Your task to perform on an android device: Empty the shopping cart on walmart.com. Search for "macbook" on walmart.com, select the first entry, and add it to the cart. Image 0: 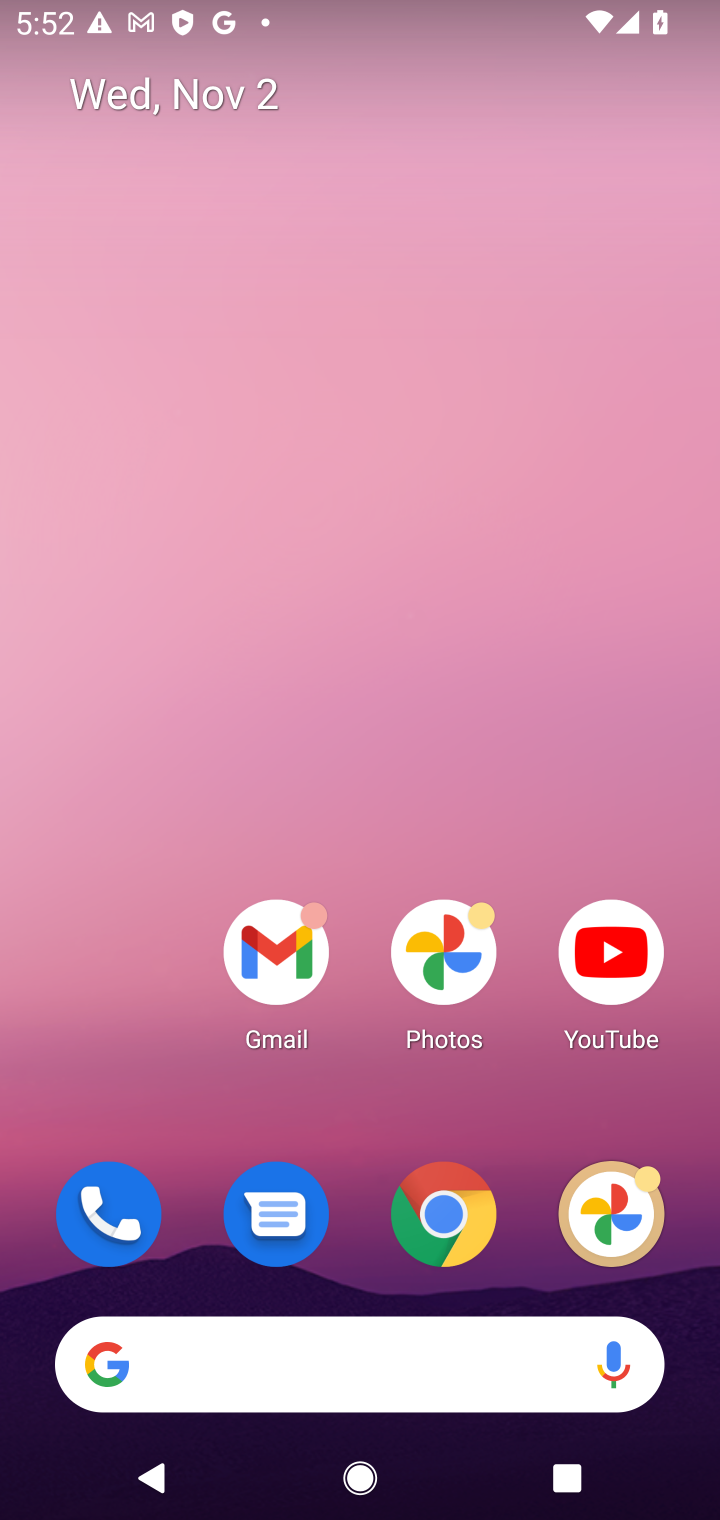
Step 0: click (440, 1213)
Your task to perform on an android device: Empty the shopping cart on walmart.com. Search for "macbook" on walmart.com, select the first entry, and add it to the cart. Image 1: 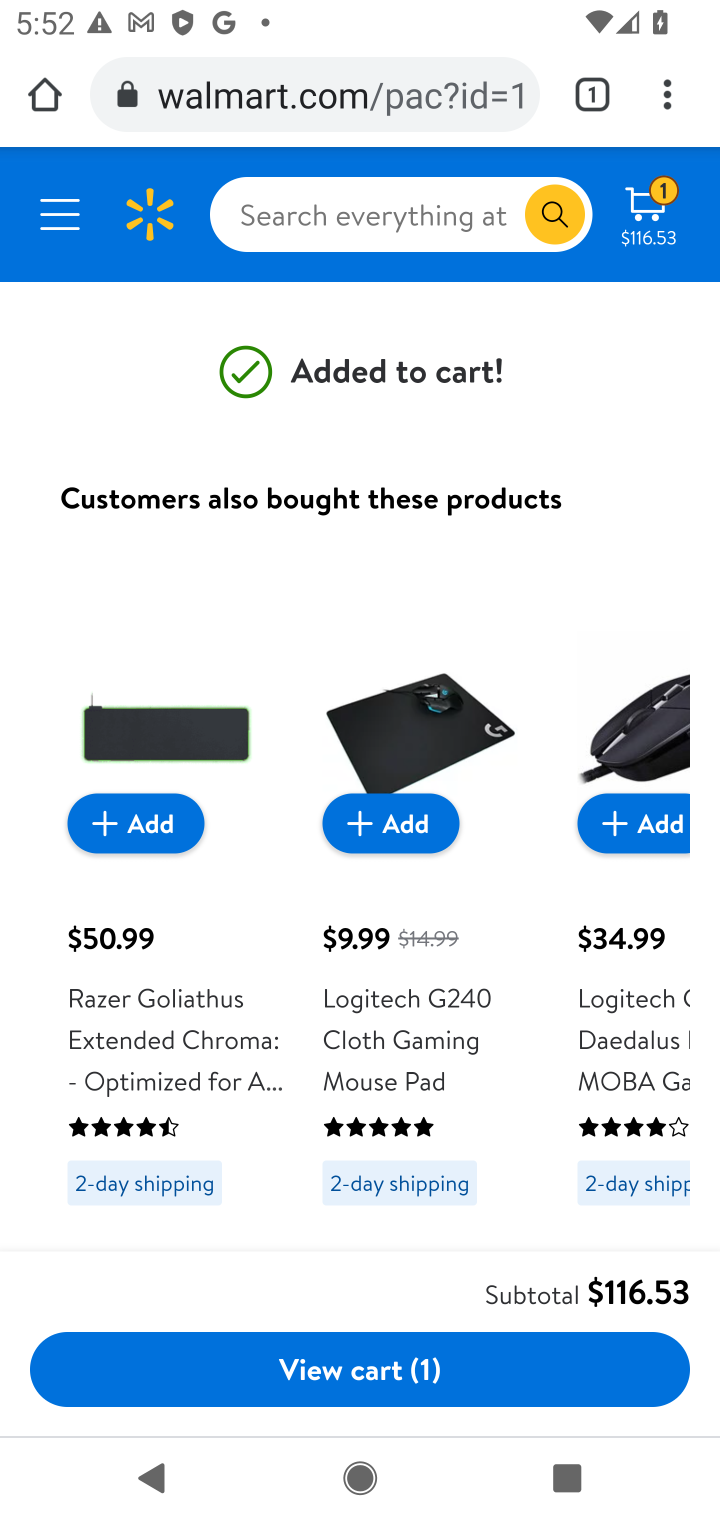
Step 1: click (384, 82)
Your task to perform on an android device: Empty the shopping cart on walmart.com. Search for "macbook" on walmart.com, select the first entry, and add it to the cart. Image 2: 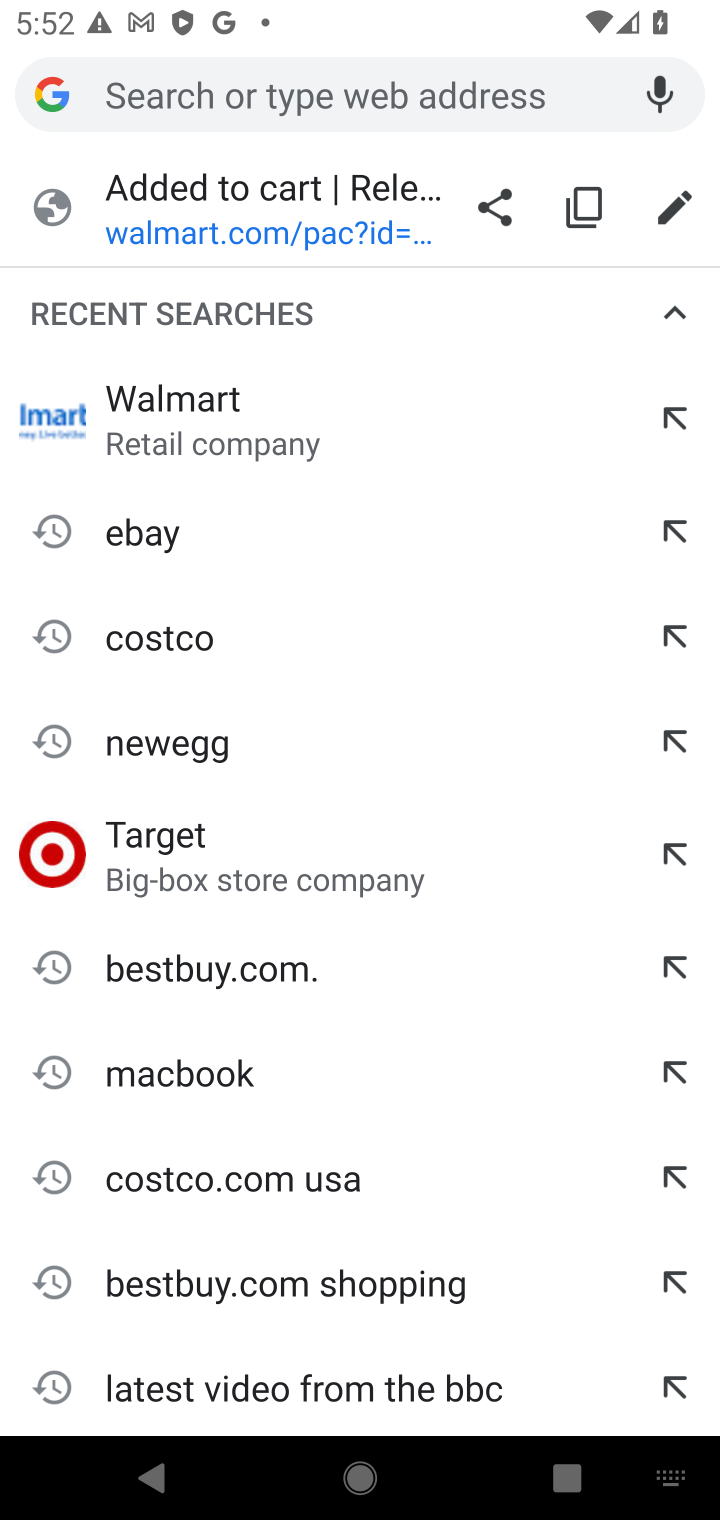
Step 2: type "walmart.com"
Your task to perform on an android device: Empty the shopping cart on walmart.com. Search for "macbook" on walmart.com, select the first entry, and add it to the cart. Image 3: 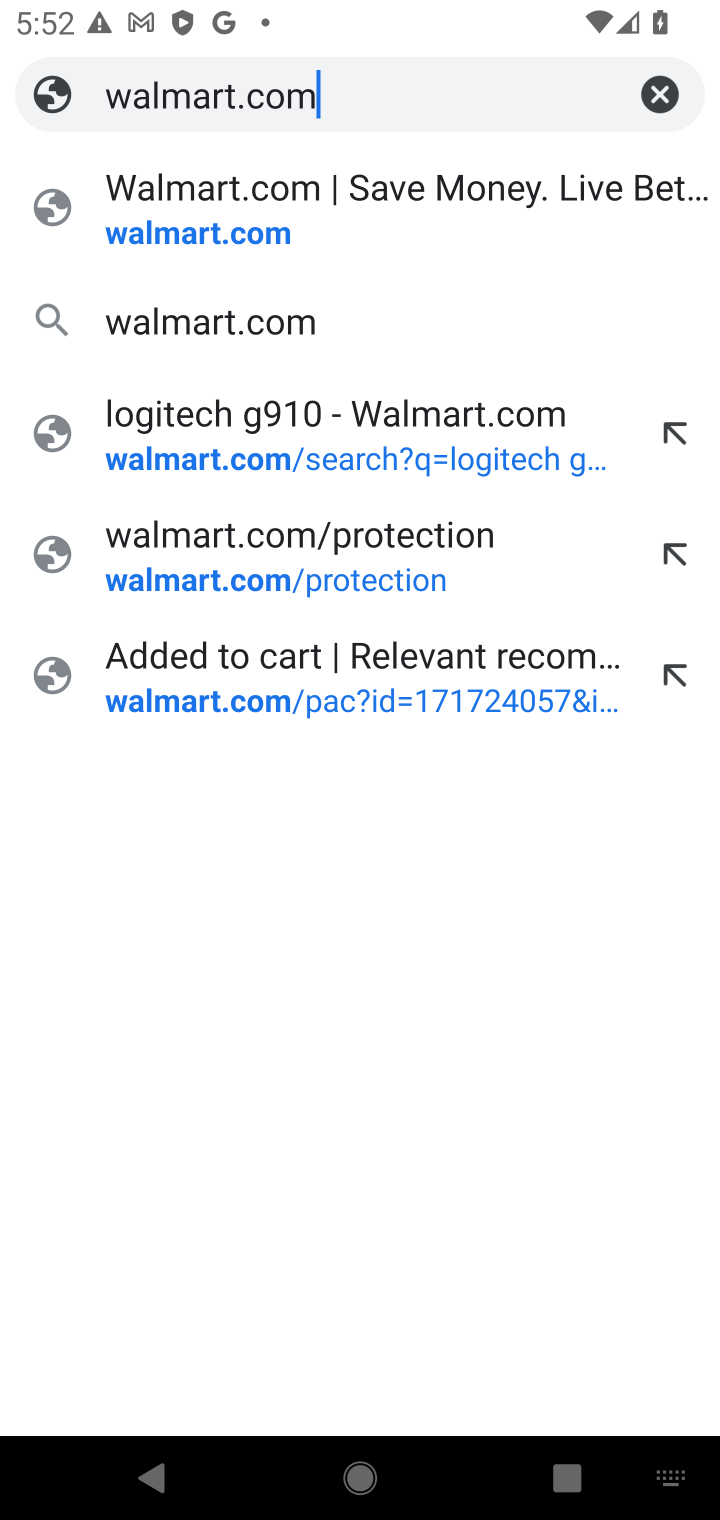
Step 3: click (291, 322)
Your task to perform on an android device: Empty the shopping cart on walmart.com. Search for "macbook" on walmart.com, select the first entry, and add it to the cart. Image 4: 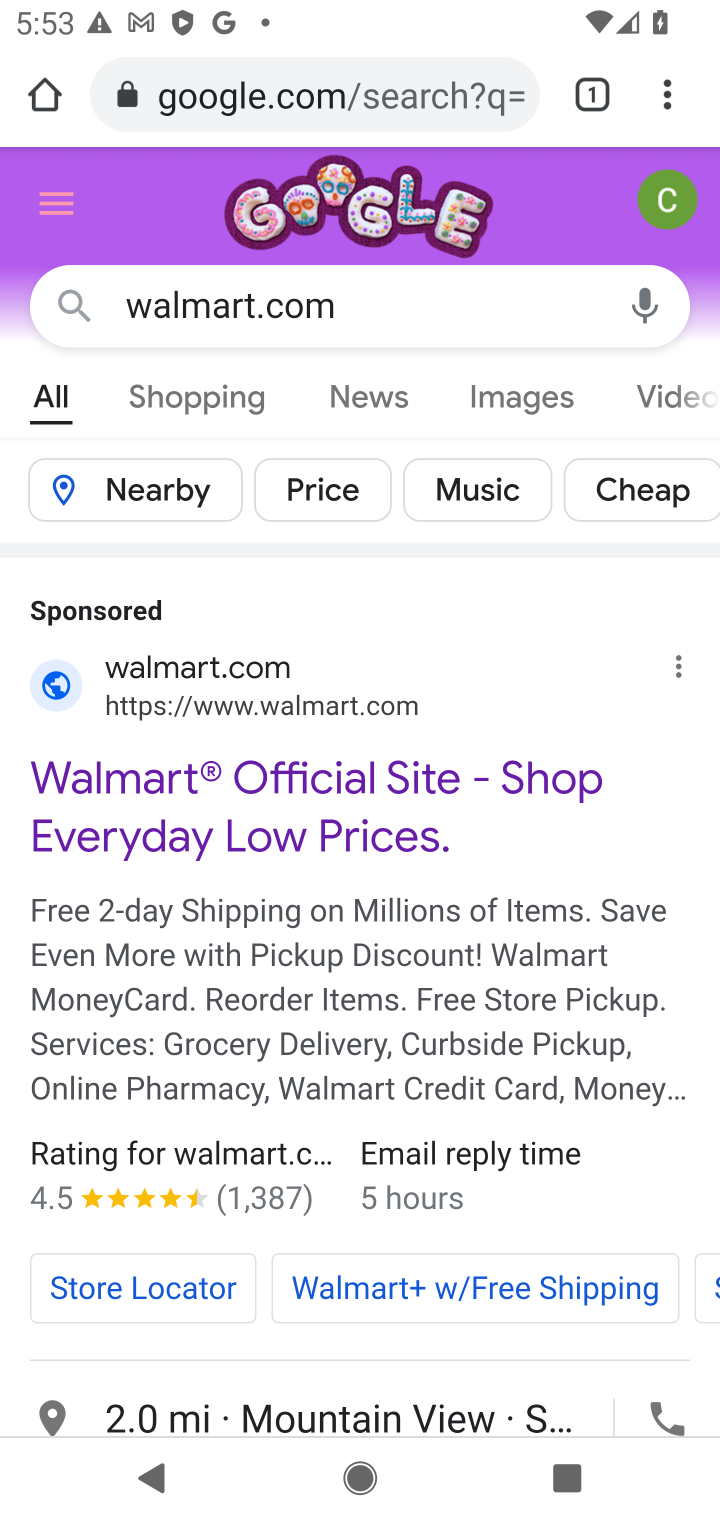
Step 4: drag from (426, 1210) to (449, 597)
Your task to perform on an android device: Empty the shopping cart on walmart.com. Search for "macbook" on walmart.com, select the first entry, and add it to the cart. Image 5: 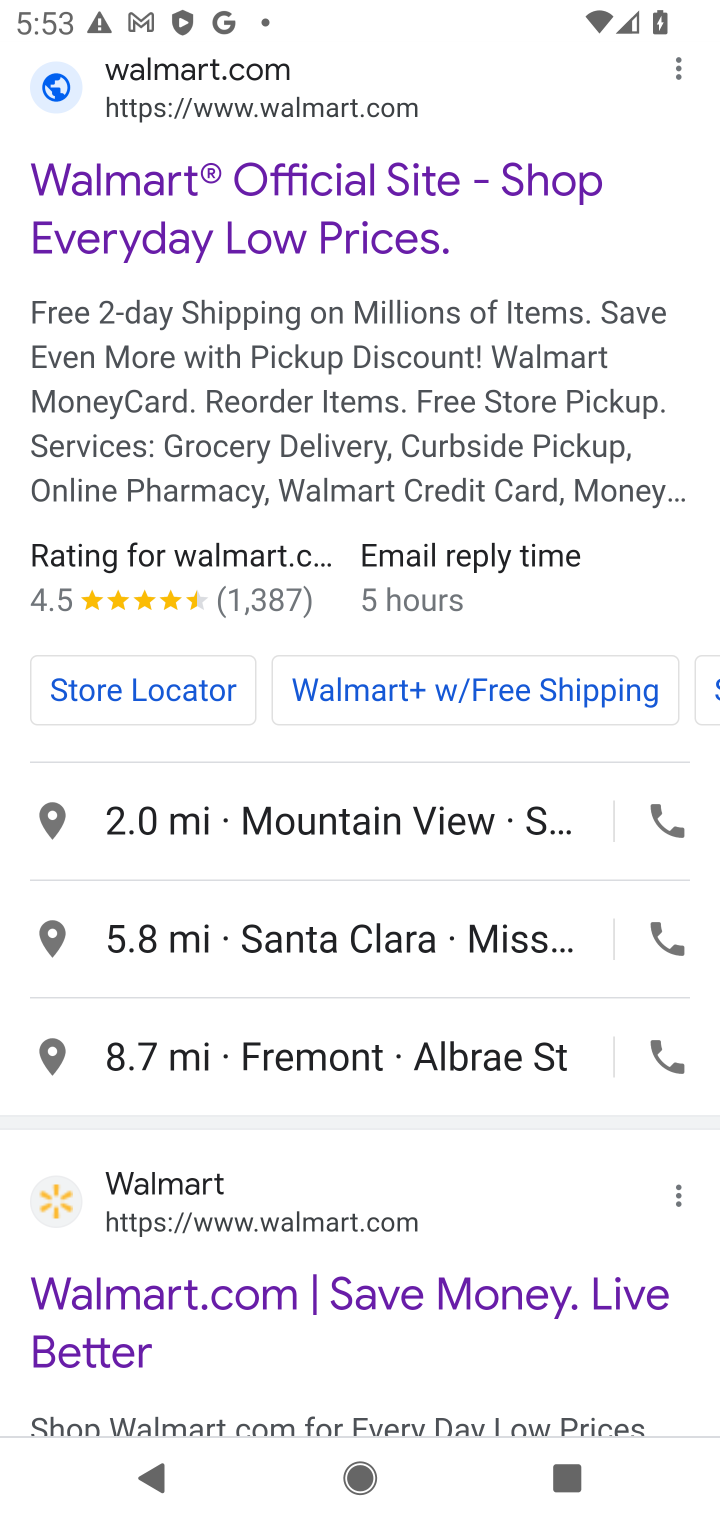
Step 5: drag from (471, 1212) to (515, 674)
Your task to perform on an android device: Empty the shopping cart on walmart.com. Search for "macbook" on walmart.com, select the first entry, and add it to the cart. Image 6: 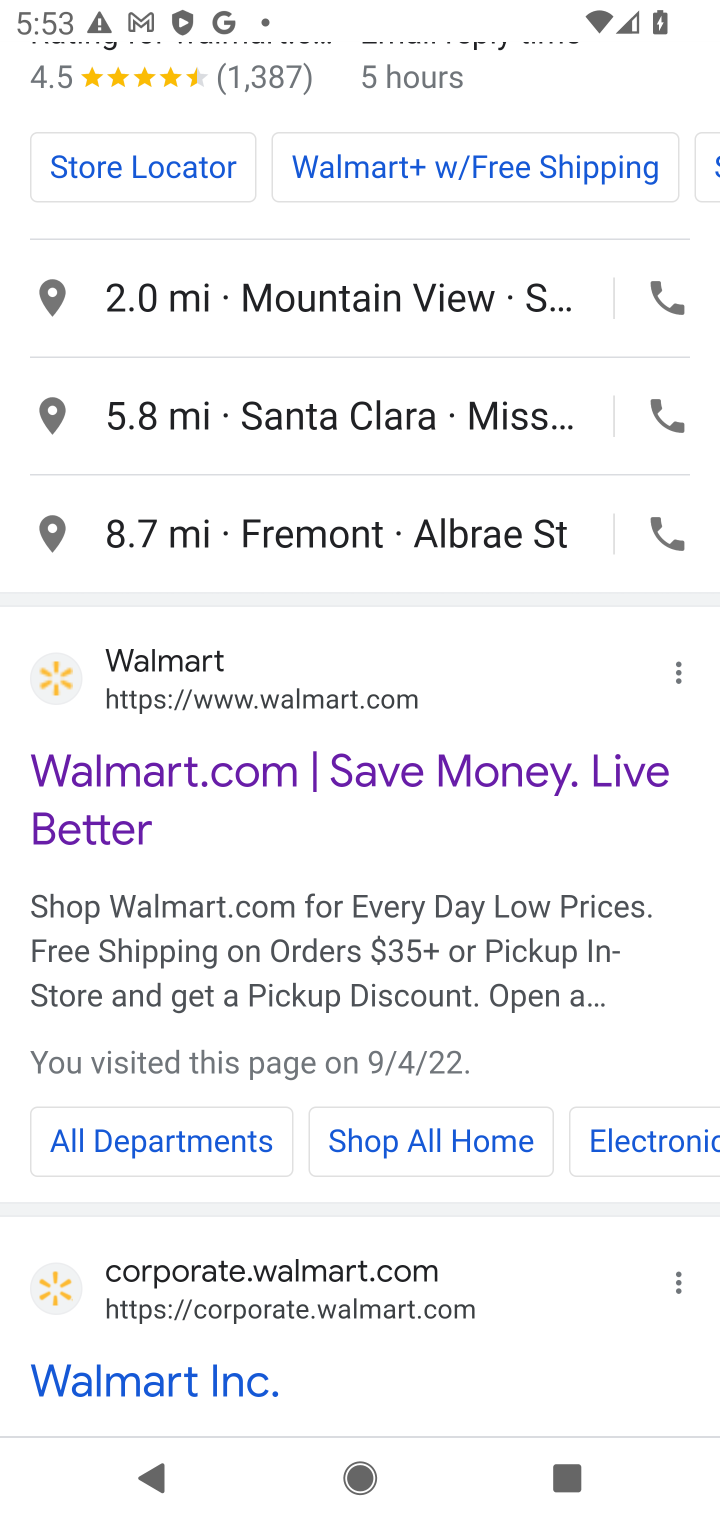
Step 6: click (211, 775)
Your task to perform on an android device: Empty the shopping cart on walmart.com. Search for "macbook" on walmart.com, select the first entry, and add it to the cart. Image 7: 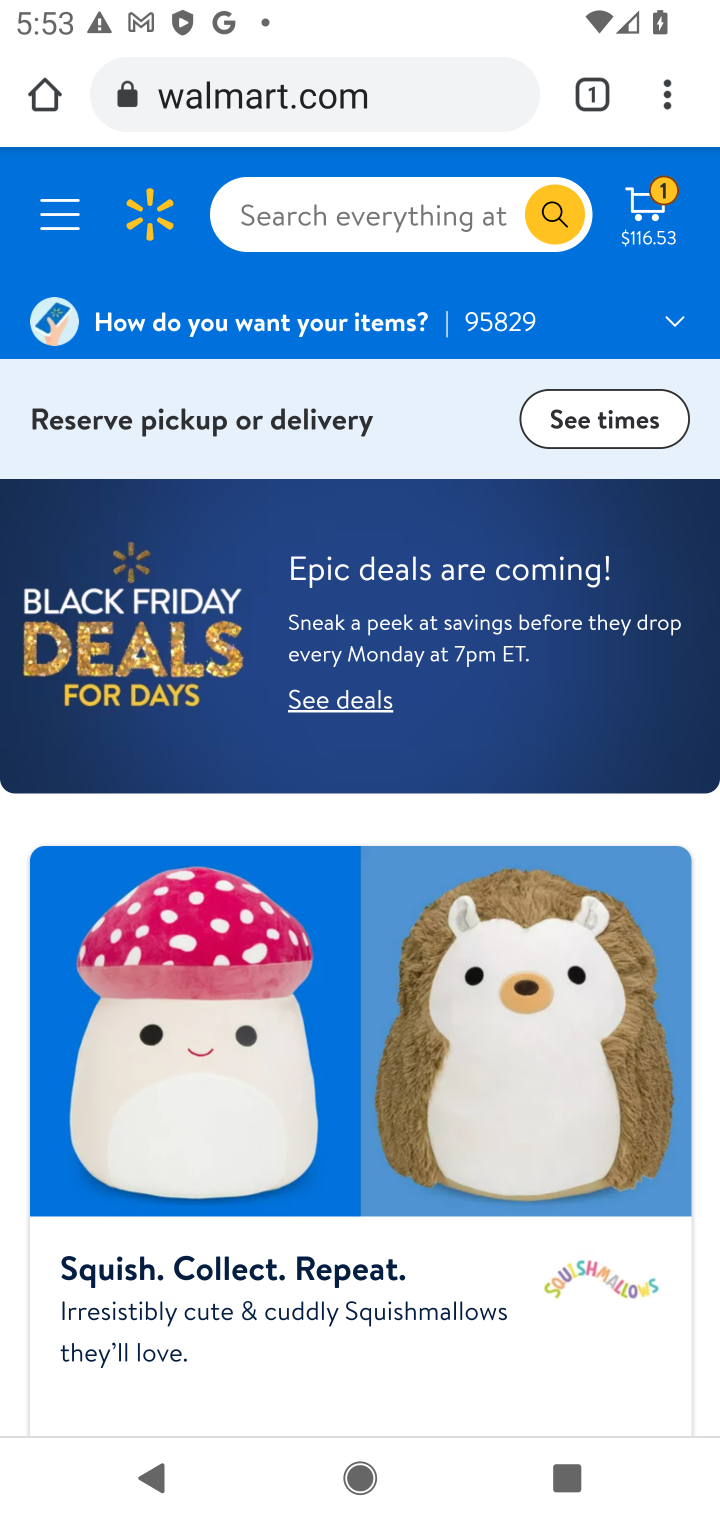
Step 7: click (650, 207)
Your task to perform on an android device: Empty the shopping cart on walmart.com. Search for "macbook" on walmart.com, select the first entry, and add it to the cart. Image 8: 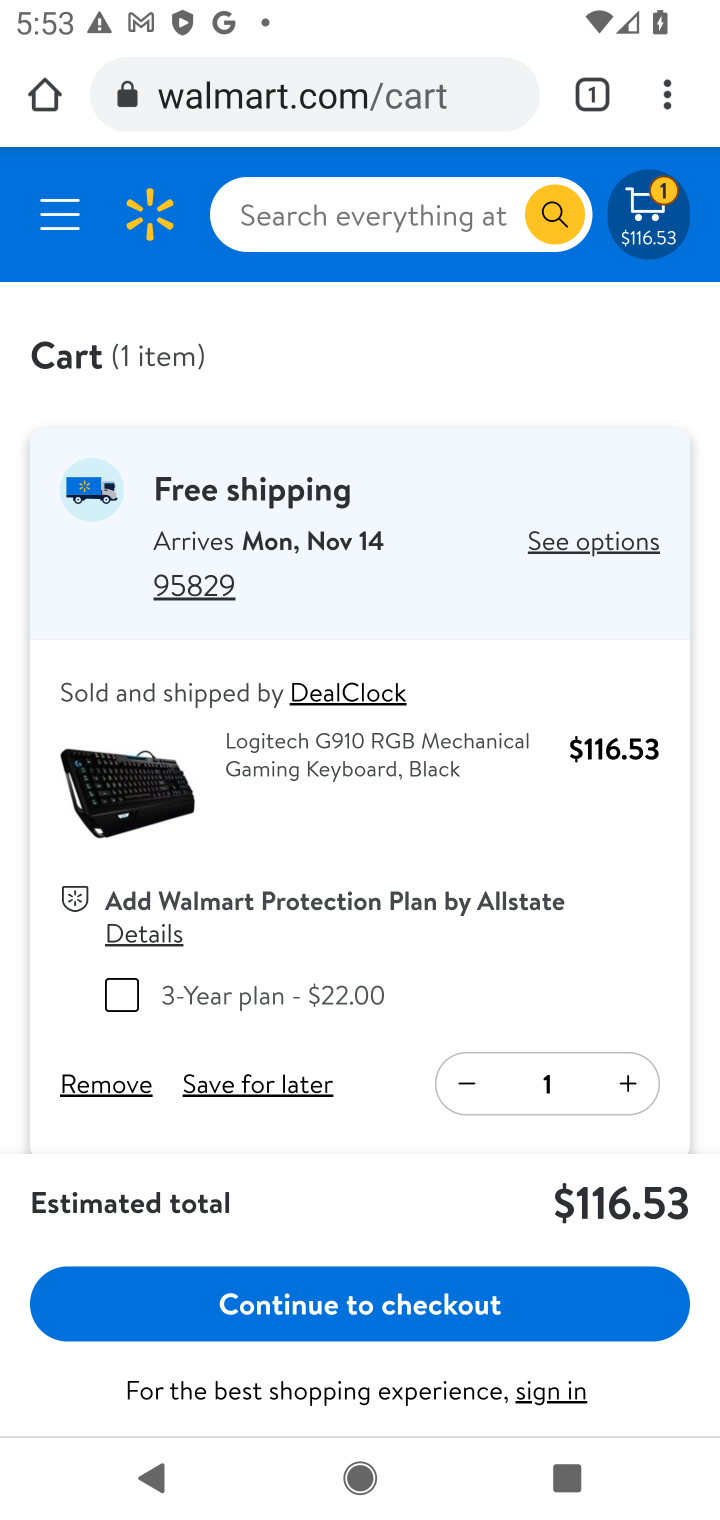
Step 8: click (88, 1085)
Your task to perform on an android device: Empty the shopping cart on walmart.com. Search for "macbook" on walmart.com, select the first entry, and add it to the cart. Image 9: 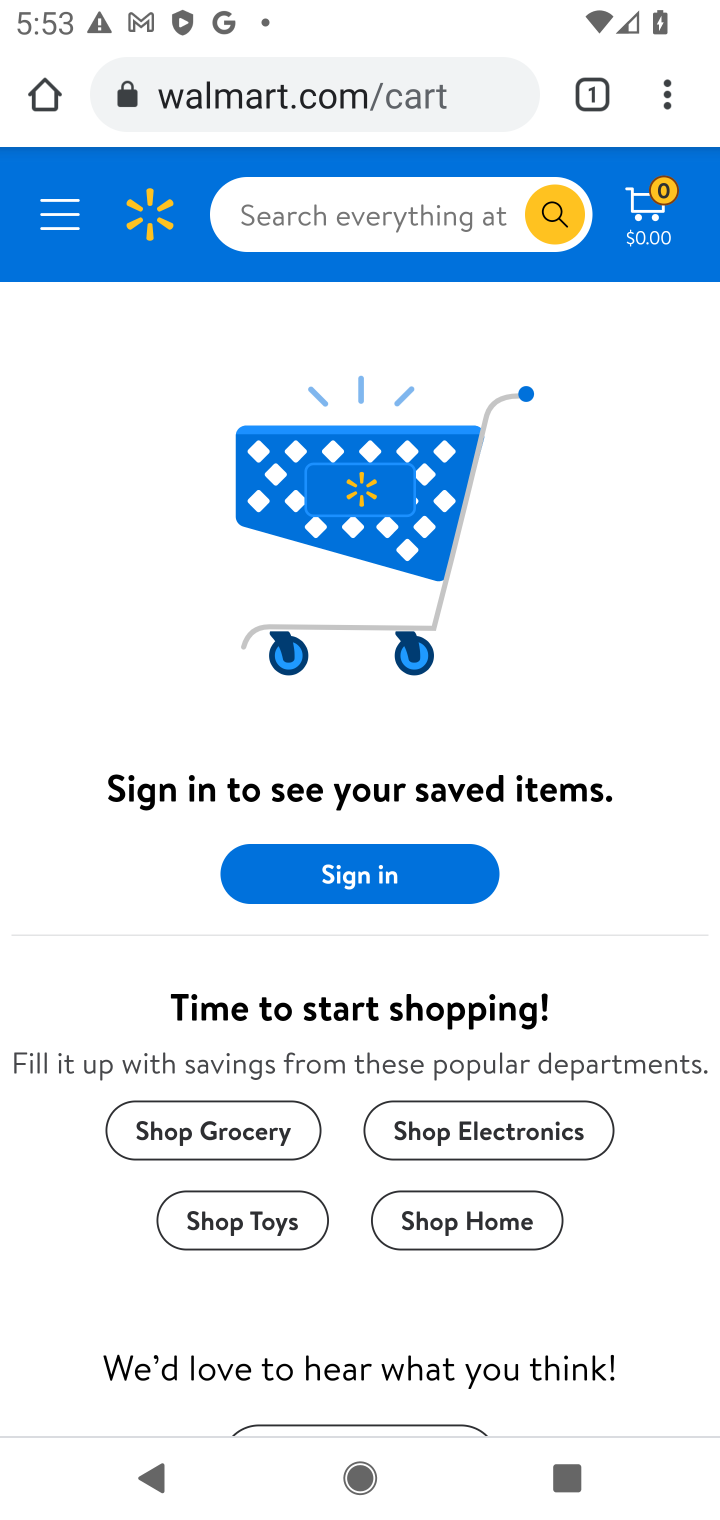
Step 9: click (317, 219)
Your task to perform on an android device: Empty the shopping cart on walmart.com. Search for "macbook" on walmart.com, select the first entry, and add it to the cart. Image 10: 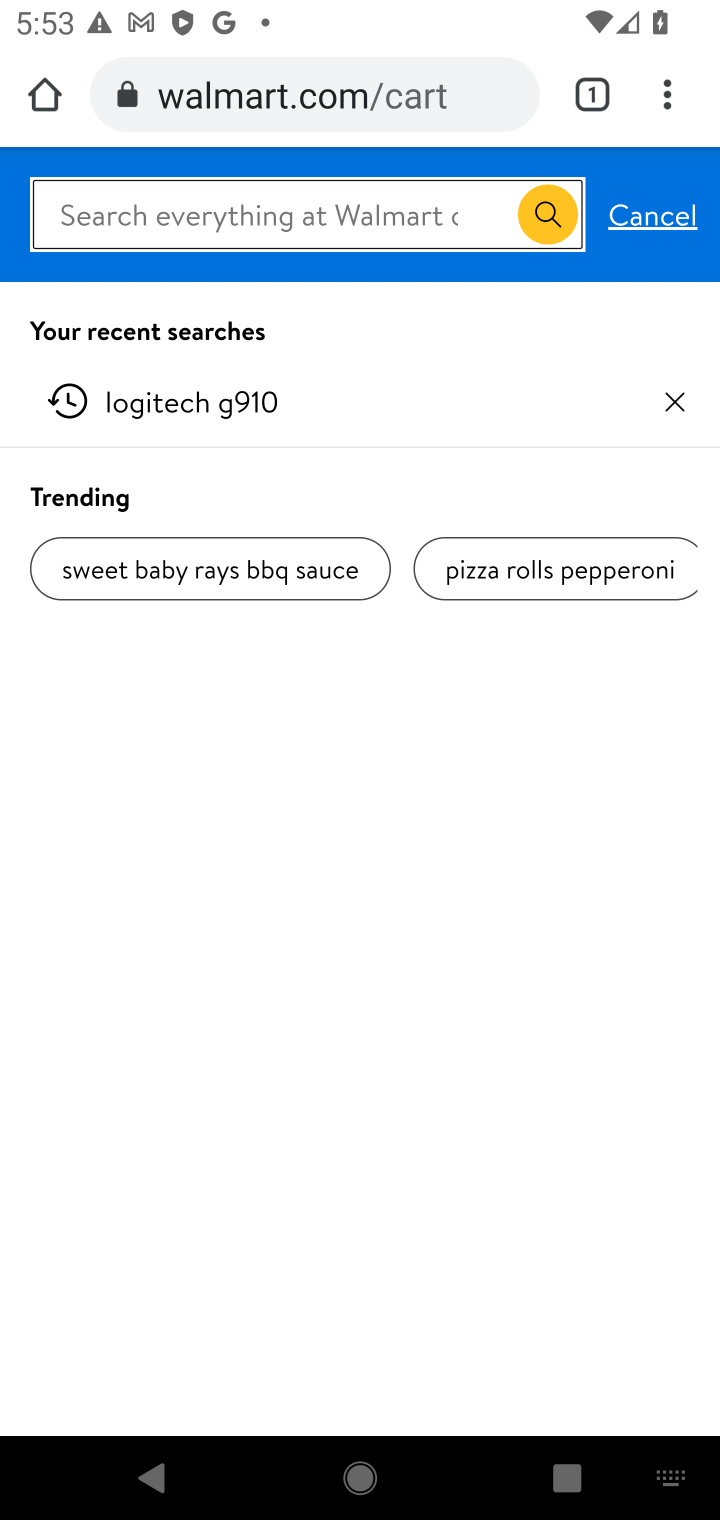
Step 10: type "macbook"
Your task to perform on an android device: Empty the shopping cart on walmart.com. Search for "macbook" on walmart.com, select the first entry, and add it to the cart. Image 11: 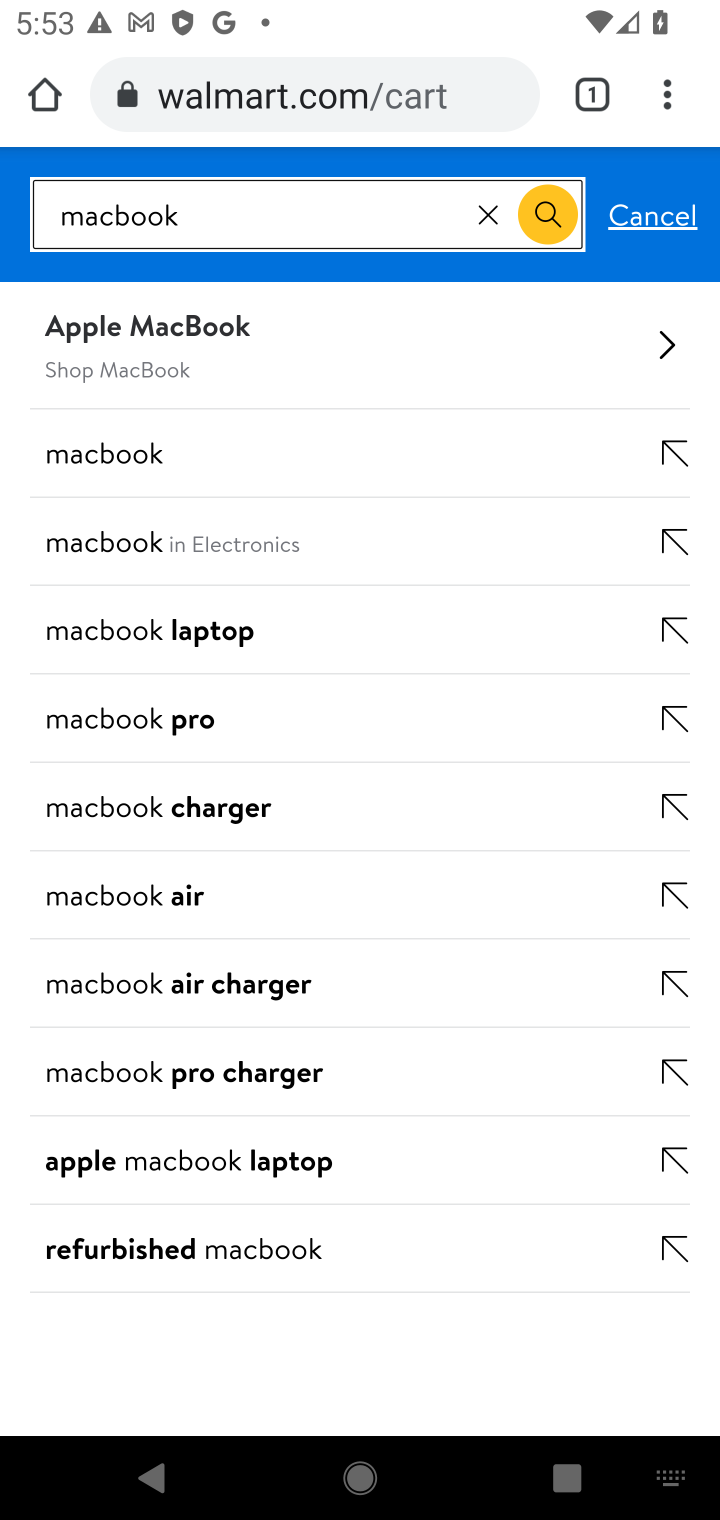
Step 11: click (547, 216)
Your task to perform on an android device: Empty the shopping cart on walmart.com. Search for "macbook" on walmart.com, select the first entry, and add it to the cart. Image 12: 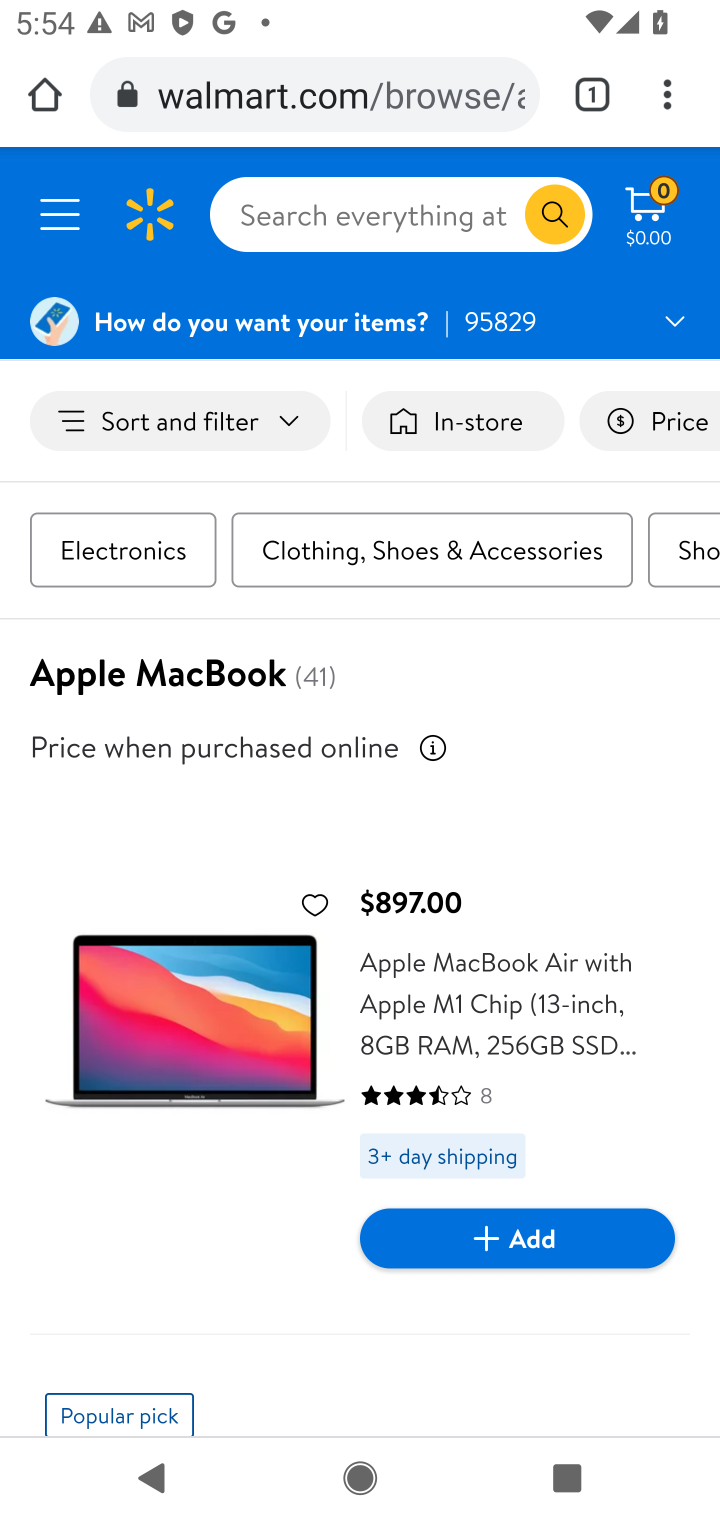
Step 12: click (551, 1245)
Your task to perform on an android device: Empty the shopping cart on walmart.com. Search for "macbook" on walmart.com, select the first entry, and add it to the cart. Image 13: 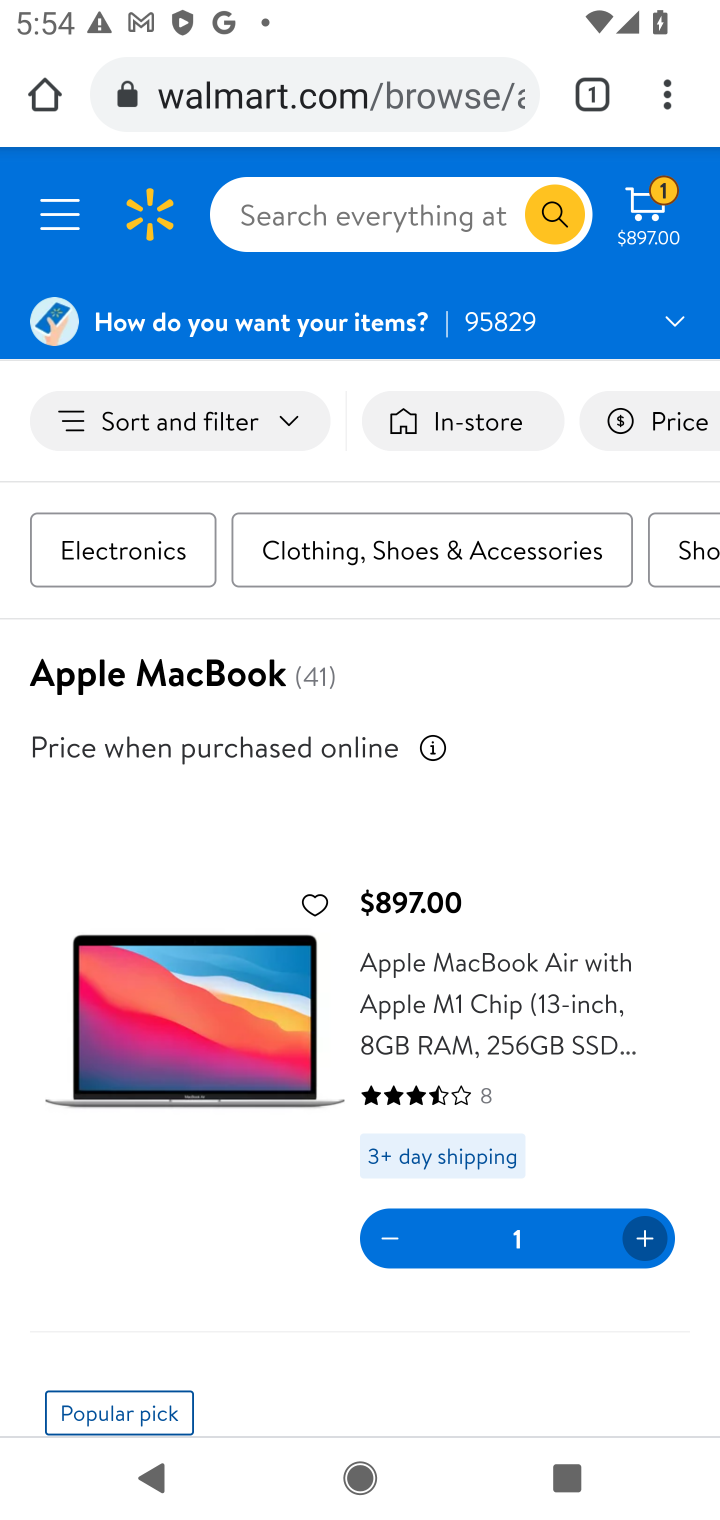
Step 13: click (649, 207)
Your task to perform on an android device: Empty the shopping cart on walmart.com. Search for "macbook" on walmart.com, select the first entry, and add it to the cart. Image 14: 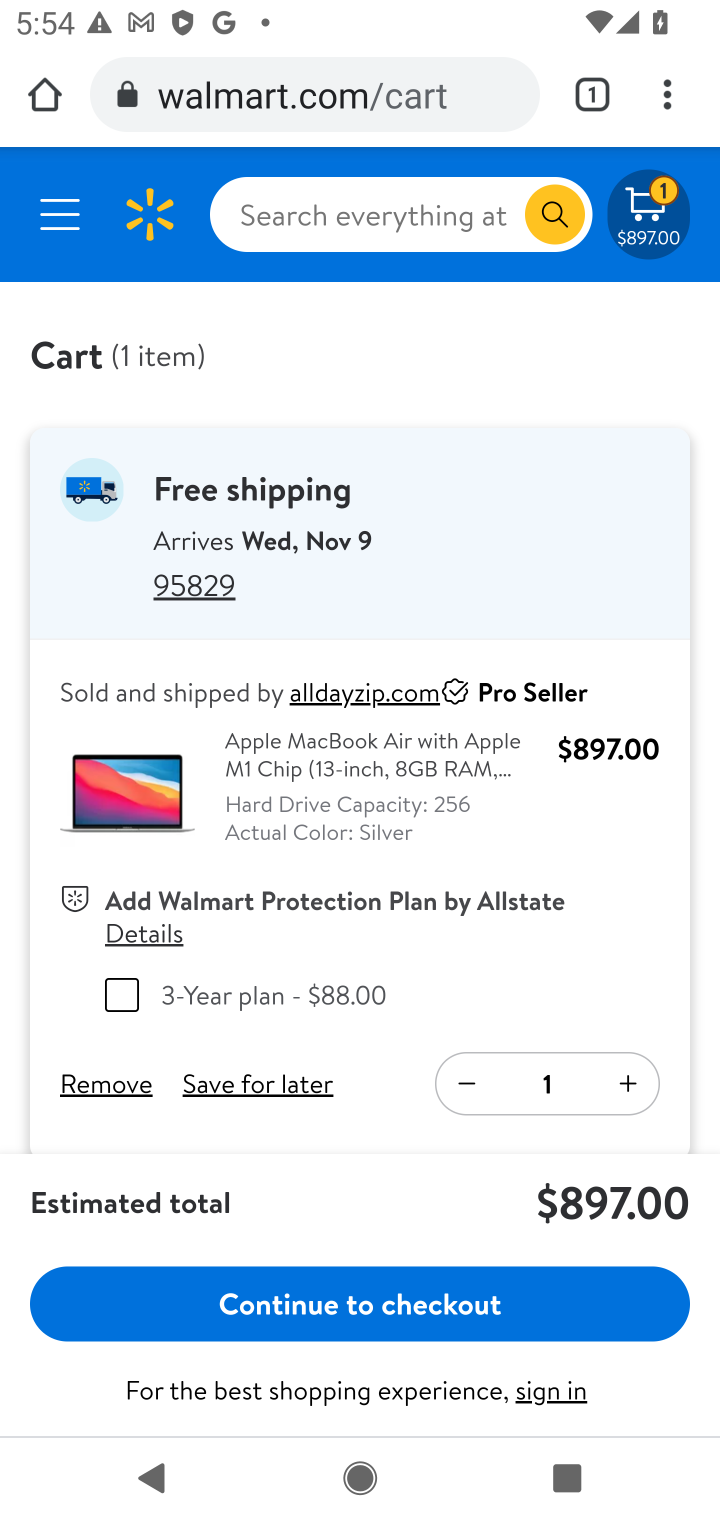
Step 14: task complete